Your task to perform on an android device: turn off location Image 0: 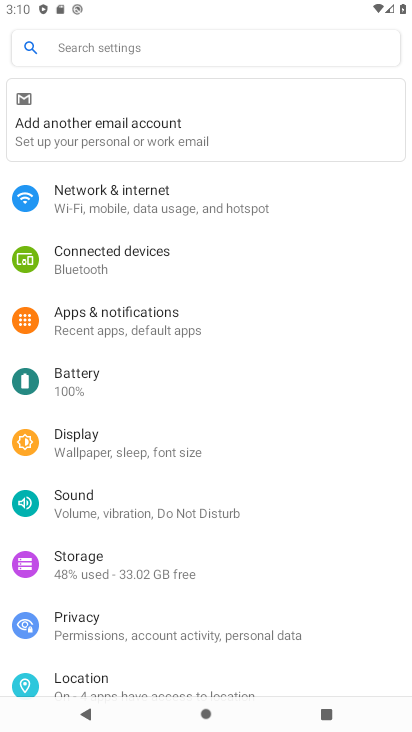
Step 0: click (111, 669)
Your task to perform on an android device: turn off location Image 1: 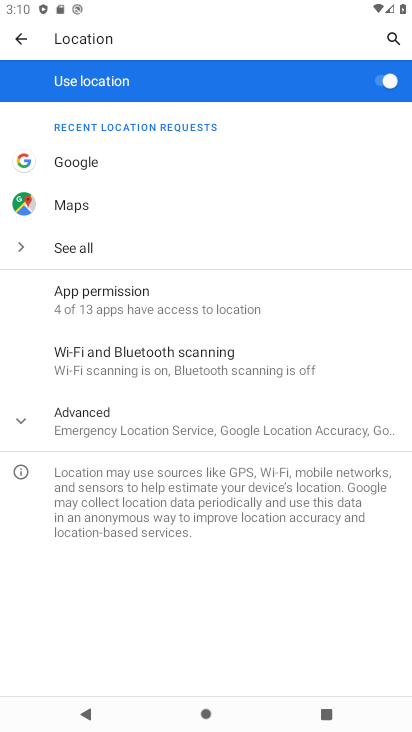
Step 1: click (382, 80)
Your task to perform on an android device: turn off location Image 2: 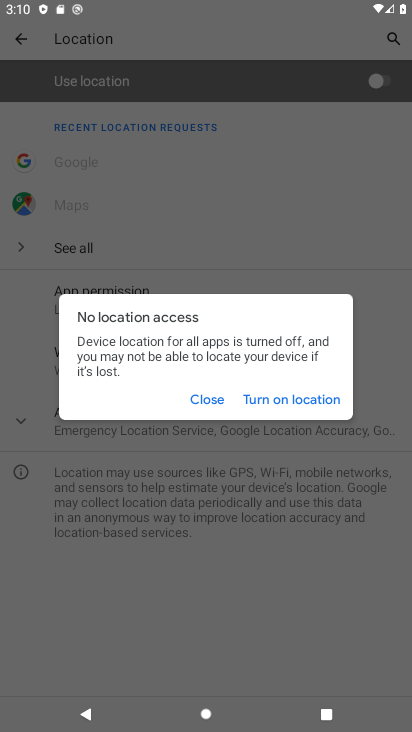
Step 2: task complete